Your task to perform on an android device: change the clock display to analog Image 0: 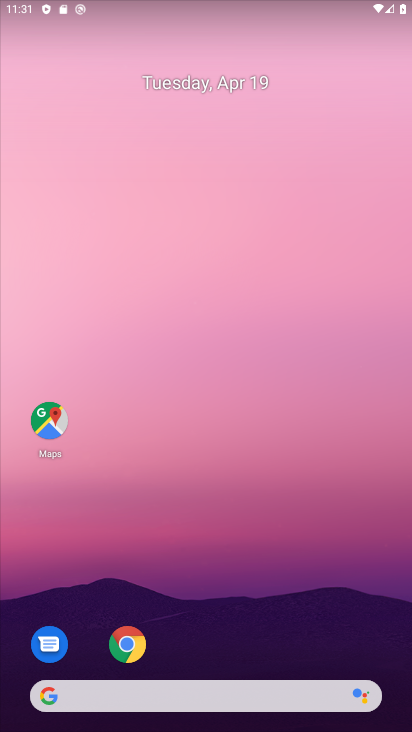
Step 0: drag from (222, 644) to (225, 163)
Your task to perform on an android device: change the clock display to analog Image 1: 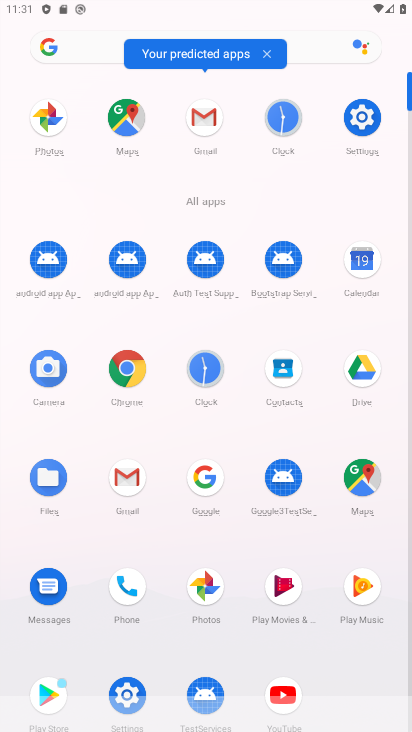
Step 1: click (283, 128)
Your task to perform on an android device: change the clock display to analog Image 2: 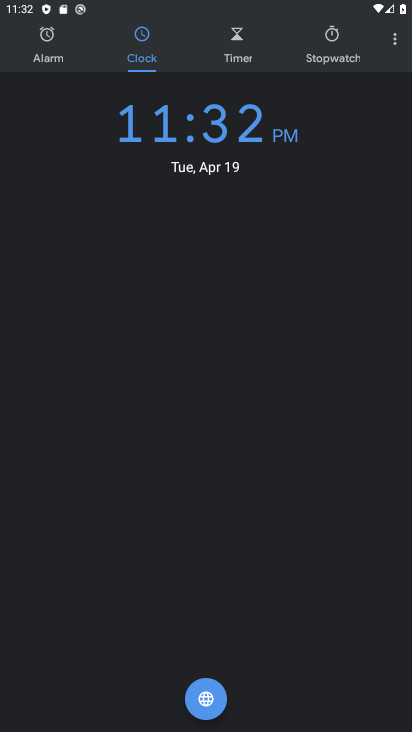
Step 2: click (393, 41)
Your task to perform on an android device: change the clock display to analog Image 3: 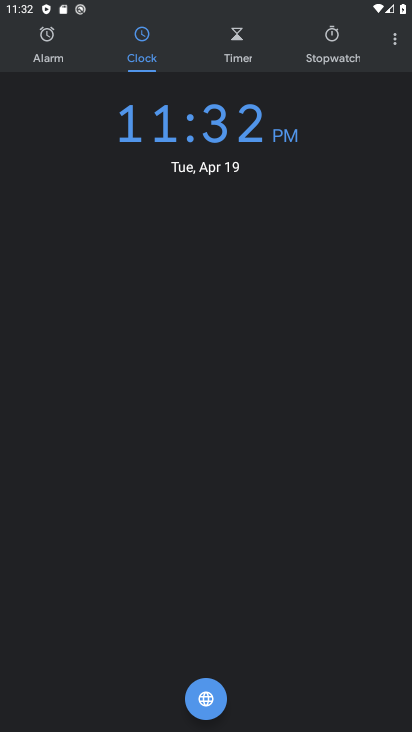
Step 3: click (396, 50)
Your task to perform on an android device: change the clock display to analog Image 4: 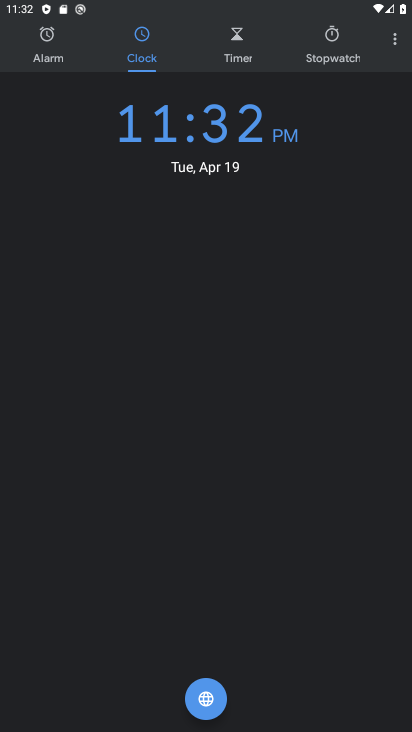
Step 4: click (393, 42)
Your task to perform on an android device: change the clock display to analog Image 5: 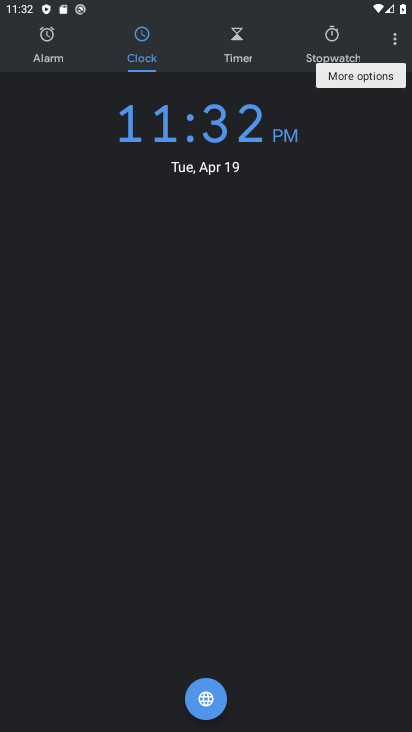
Step 5: click (372, 73)
Your task to perform on an android device: change the clock display to analog Image 6: 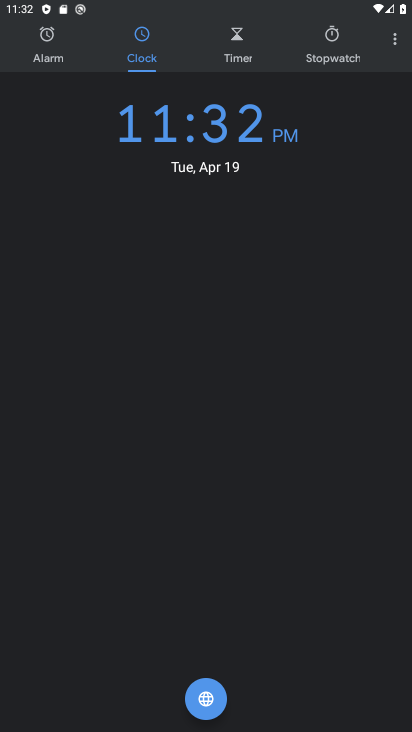
Step 6: click (395, 38)
Your task to perform on an android device: change the clock display to analog Image 7: 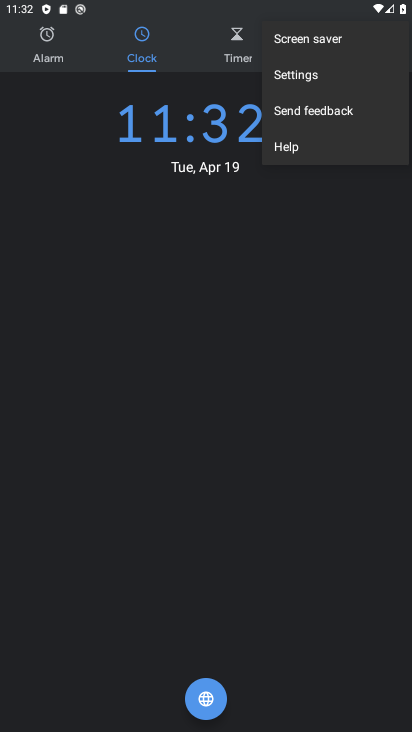
Step 7: click (315, 75)
Your task to perform on an android device: change the clock display to analog Image 8: 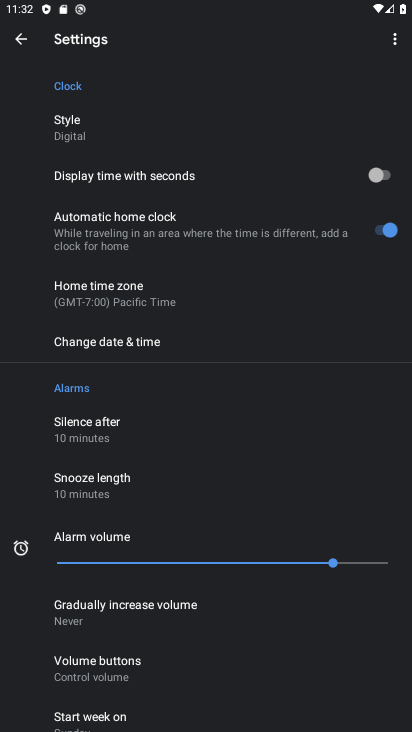
Step 8: click (128, 124)
Your task to perform on an android device: change the clock display to analog Image 9: 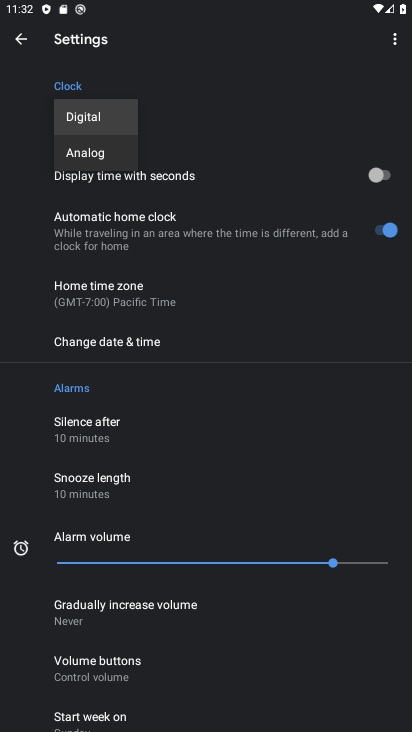
Step 9: click (104, 153)
Your task to perform on an android device: change the clock display to analog Image 10: 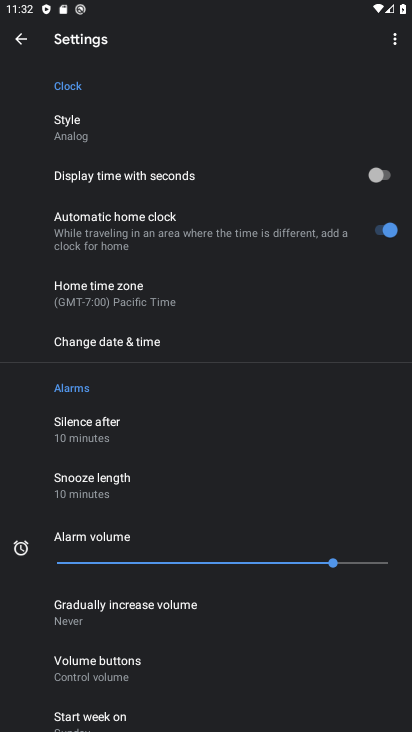
Step 10: task complete